Your task to perform on an android device: What's on my calendar tomorrow? Image 0: 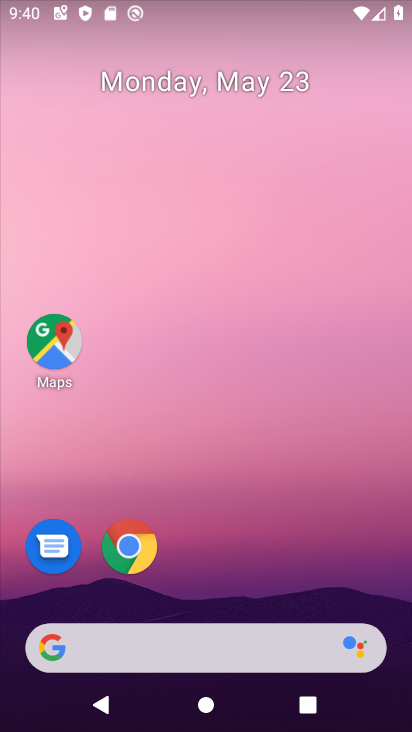
Step 0: drag from (385, 618) to (364, 167)
Your task to perform on an android device: What's on my calendar tomorrow? Image 1: 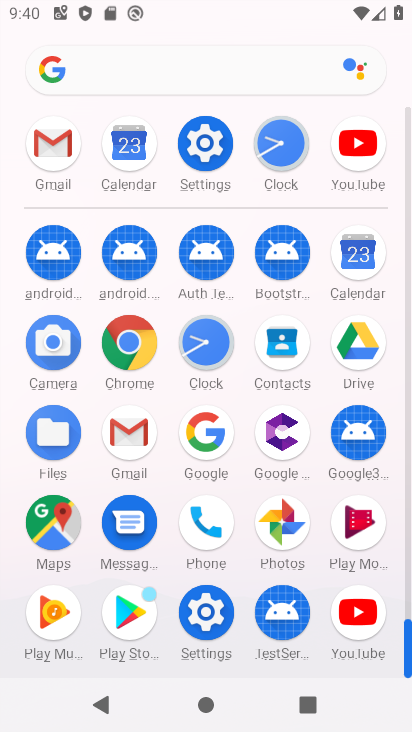
Step 1: click (364, 250)
Your task to perform on an android device: What's on my calendar tomorrow? Image 2: 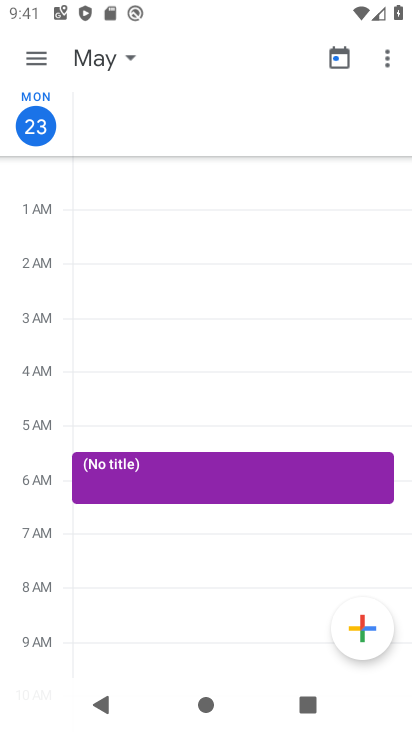
Step 2: click (121, 59)
Your task to perform on an android device: What's on my calendar tomorrow? Image 3: 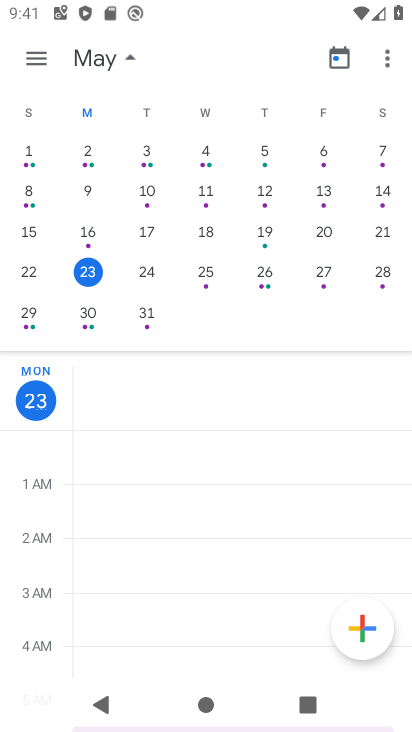
Step 3: click (139, 266)
Your task to perform on an android device: What's on my calendar tomorrow? Image 4: 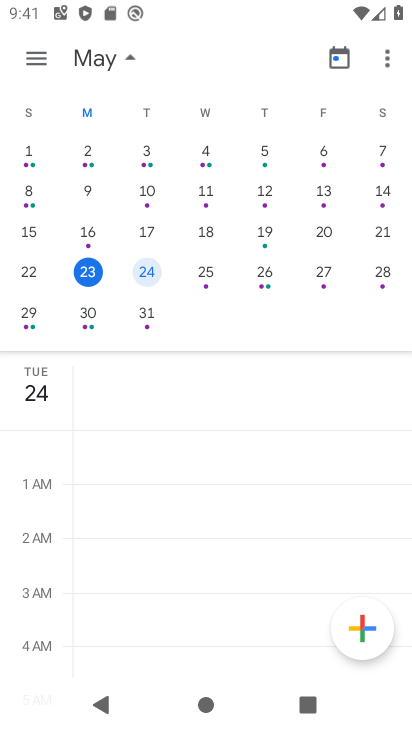
Step 4: task complete